Your task to perform on an android device: open app "Google Play Music" (install if not already installed) Image 0: 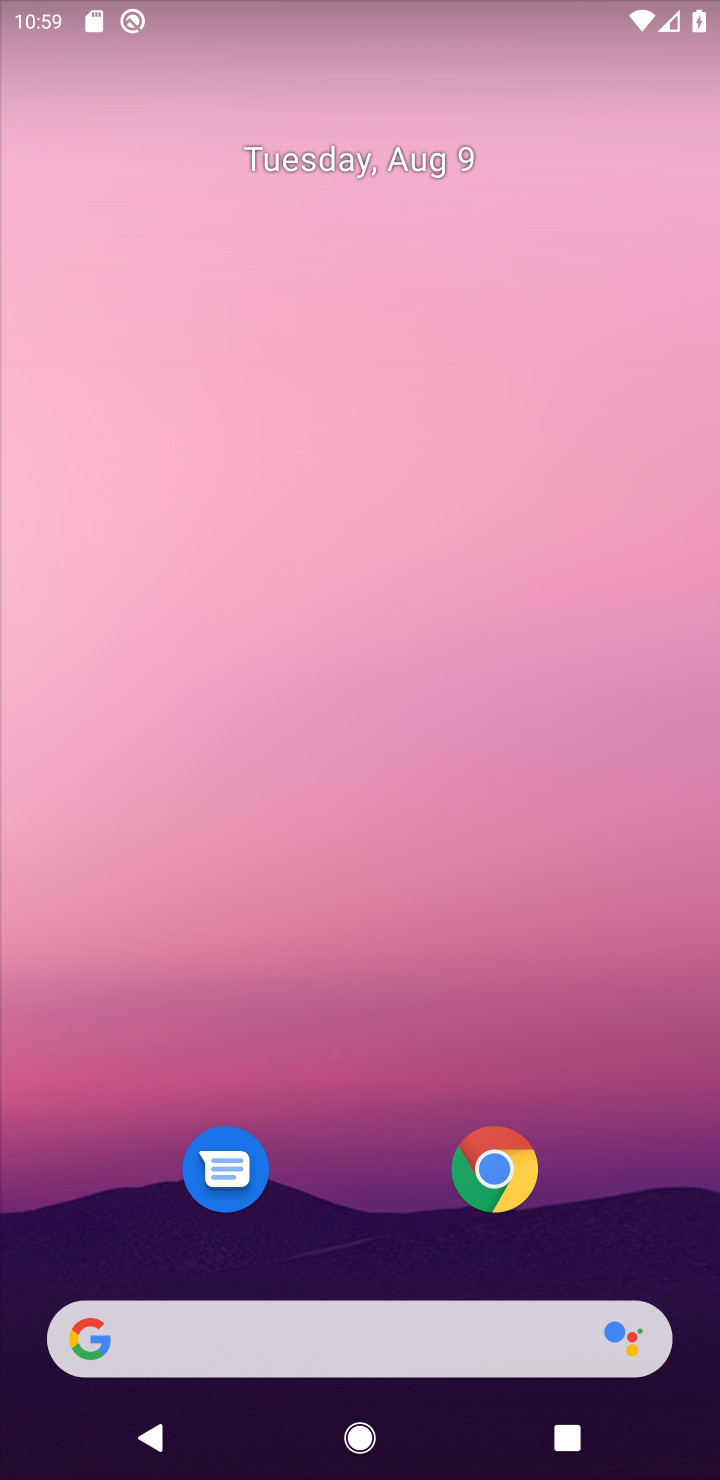
Step 0: press home button
Your task to perform on an android device: open app "Google Play Music" (install if not already installed) Image 1: 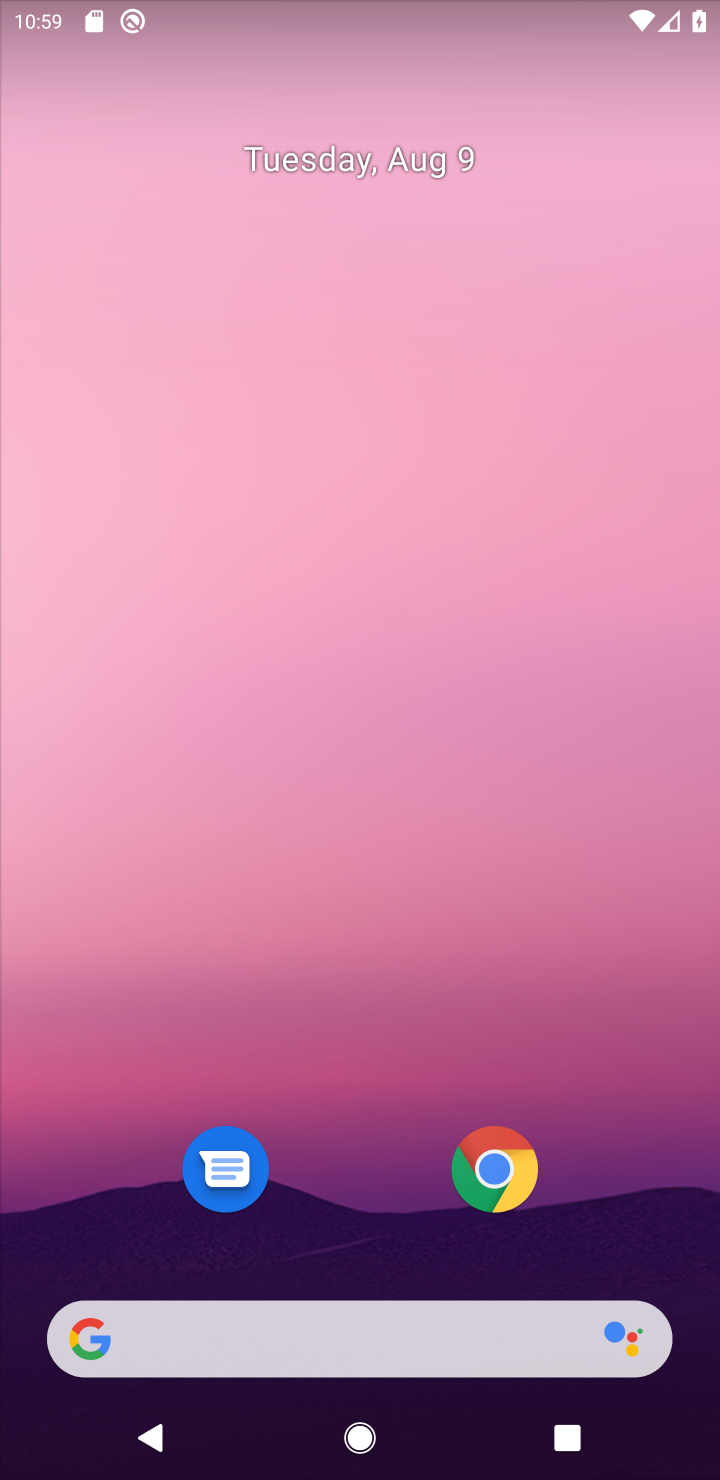
Step 1: drag from (636, 946) to (621, 182)
Your task to perform on an android device: open app "Google Play Music" (install if not already installed) Image 2: 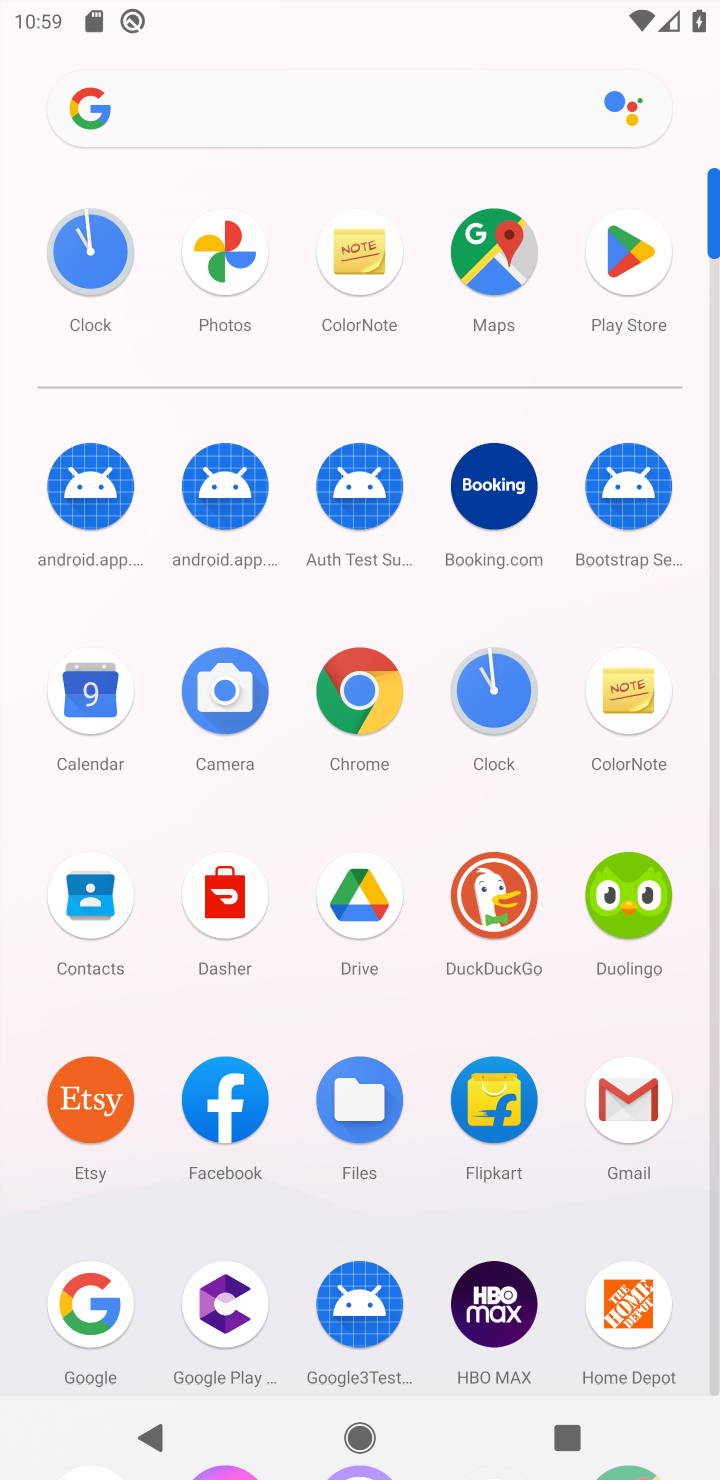
Step 2: click (626, 240)
Your task to perform on an android device: open app "Google Play Music" (install if not already installed) Image 3: 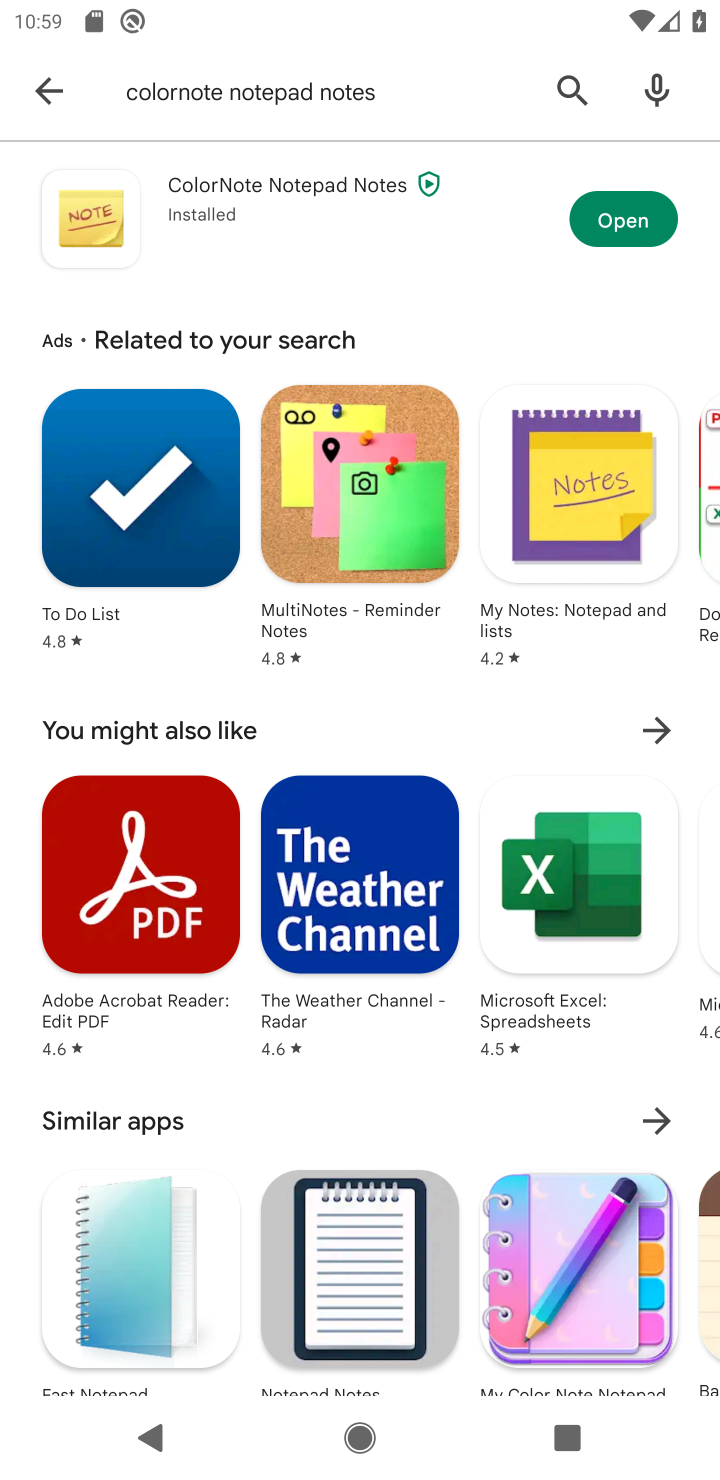
Step 3: click (564, 85)
Your task to perform on an android device: open app "Google Play Music" (install if not already installed) Image 4: 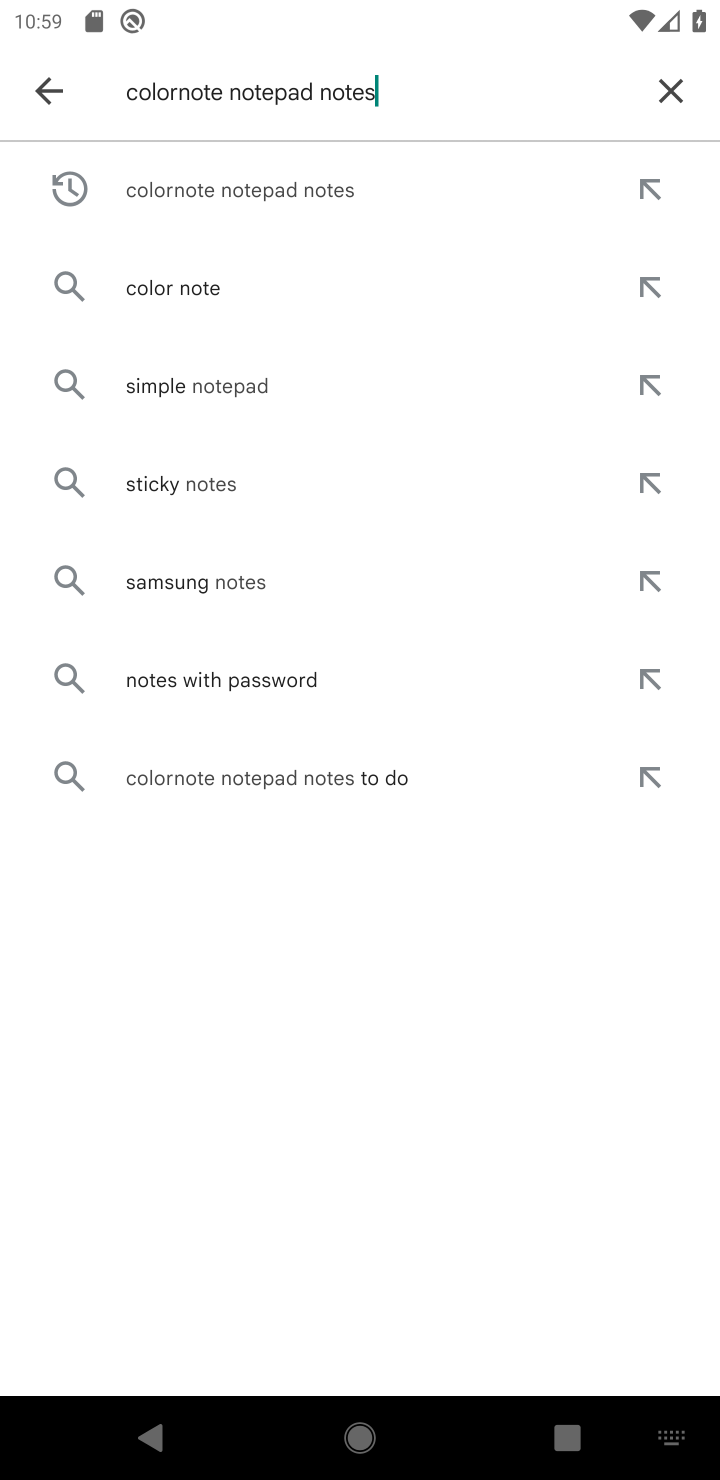
Step 4: click (664, 96)
Your task to perform on an android device: open app "Google Play Music" (install if not already installed) Image 5: 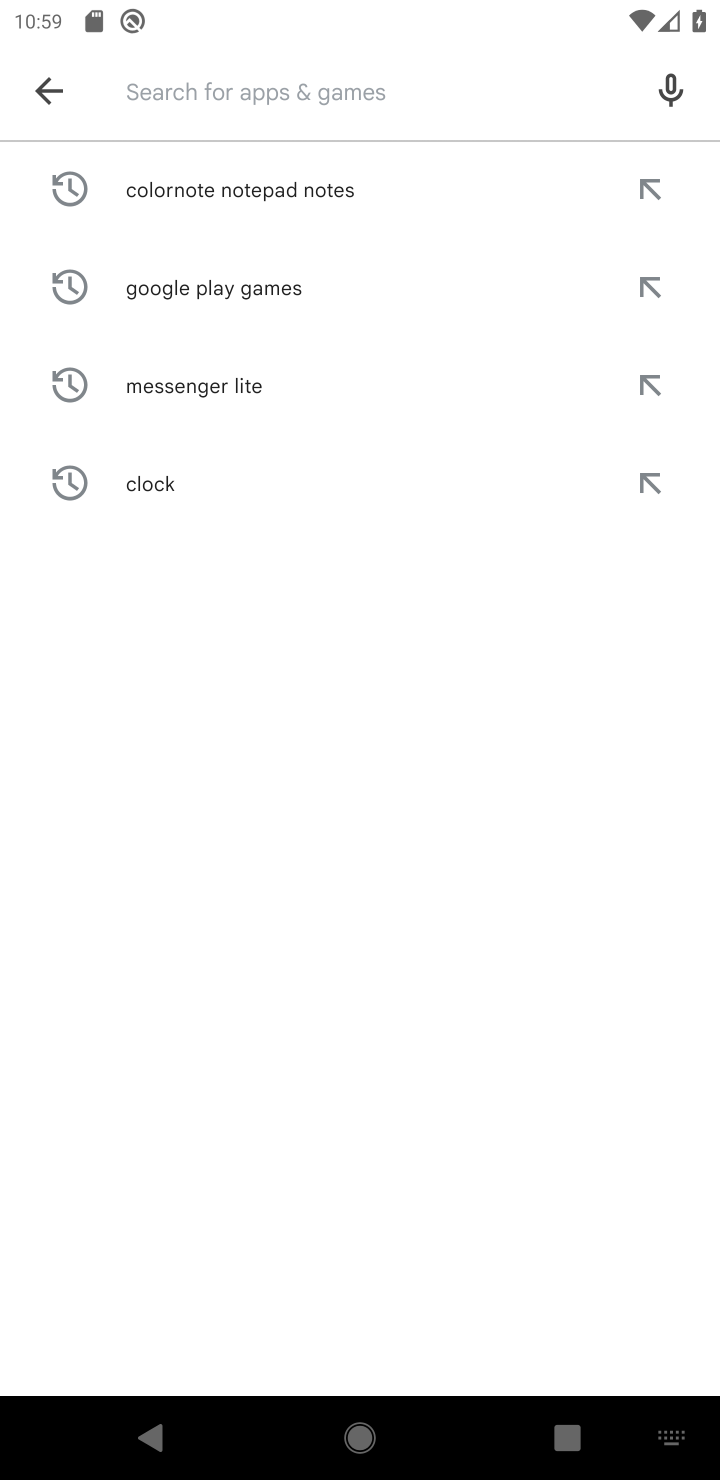
Step 5: type "google play music"
Your task to perform on an android device: open app "Google Play Music" (install if not already installed) Image 6: 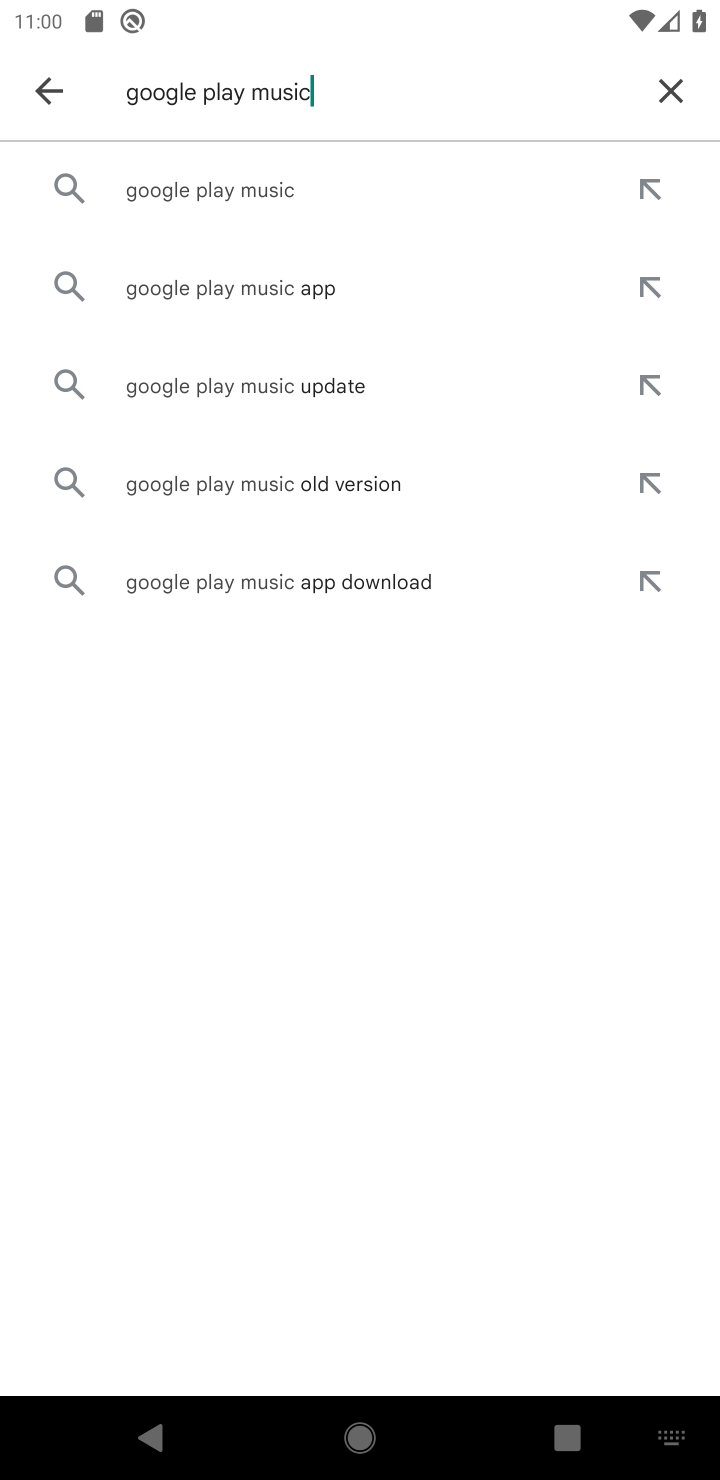
Step 6: click (287, 197)
Your task to perform on an android device: open app "Google Play Music" (install if not already installed) Image 7: 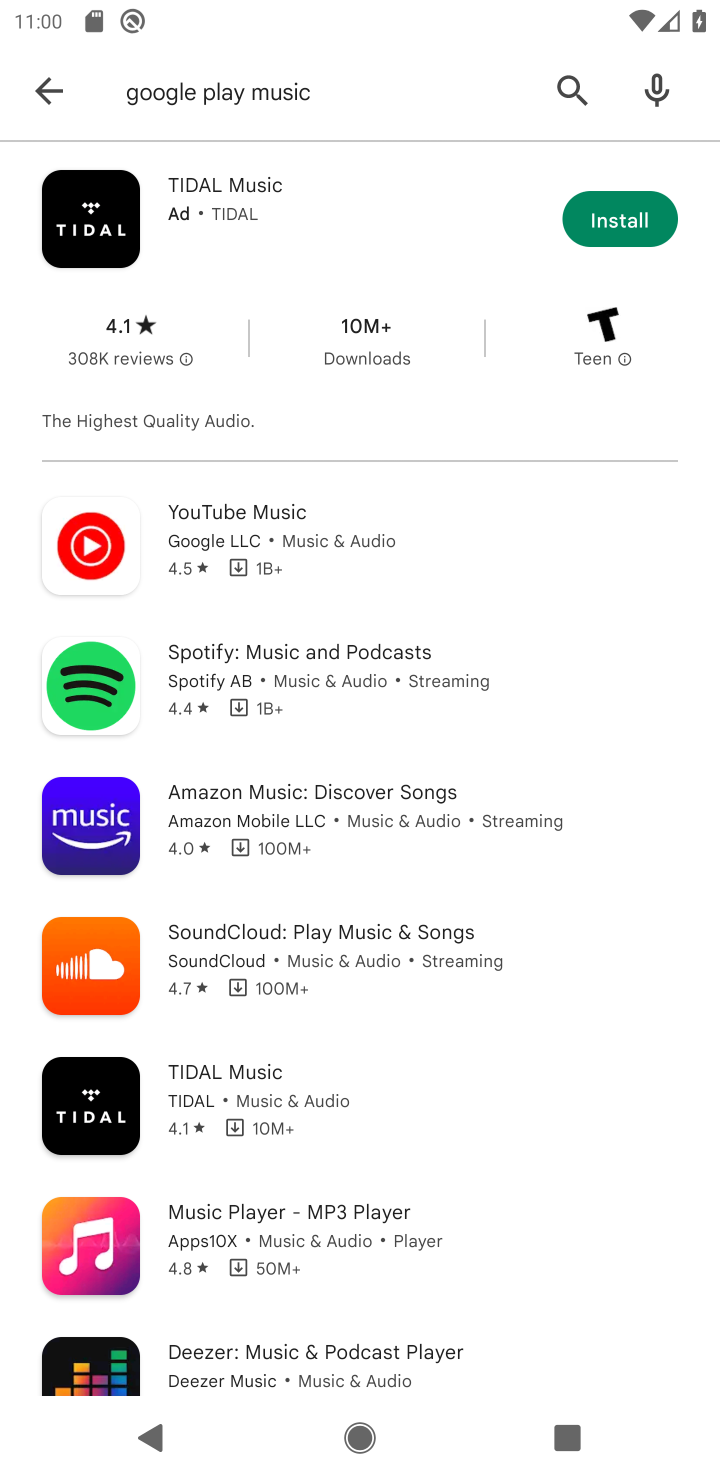
Step 7: click (317, 534)
Your task to perform on an android device: open app "Google Play Music" (install if not already installed) Image 8: 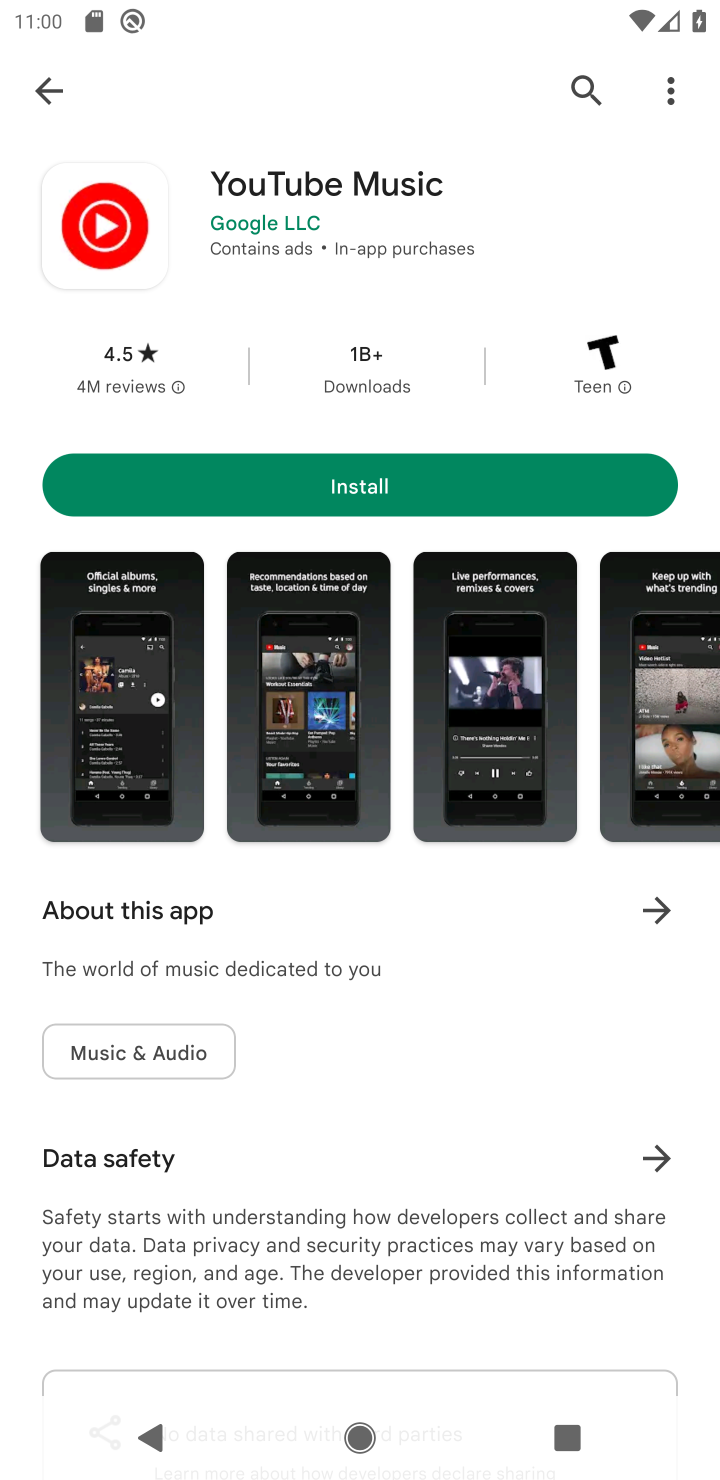
Step 8: click (398, 468)
Your task to perform on an android device: open app "Google Play Music" (install if not already installed) Image 9: 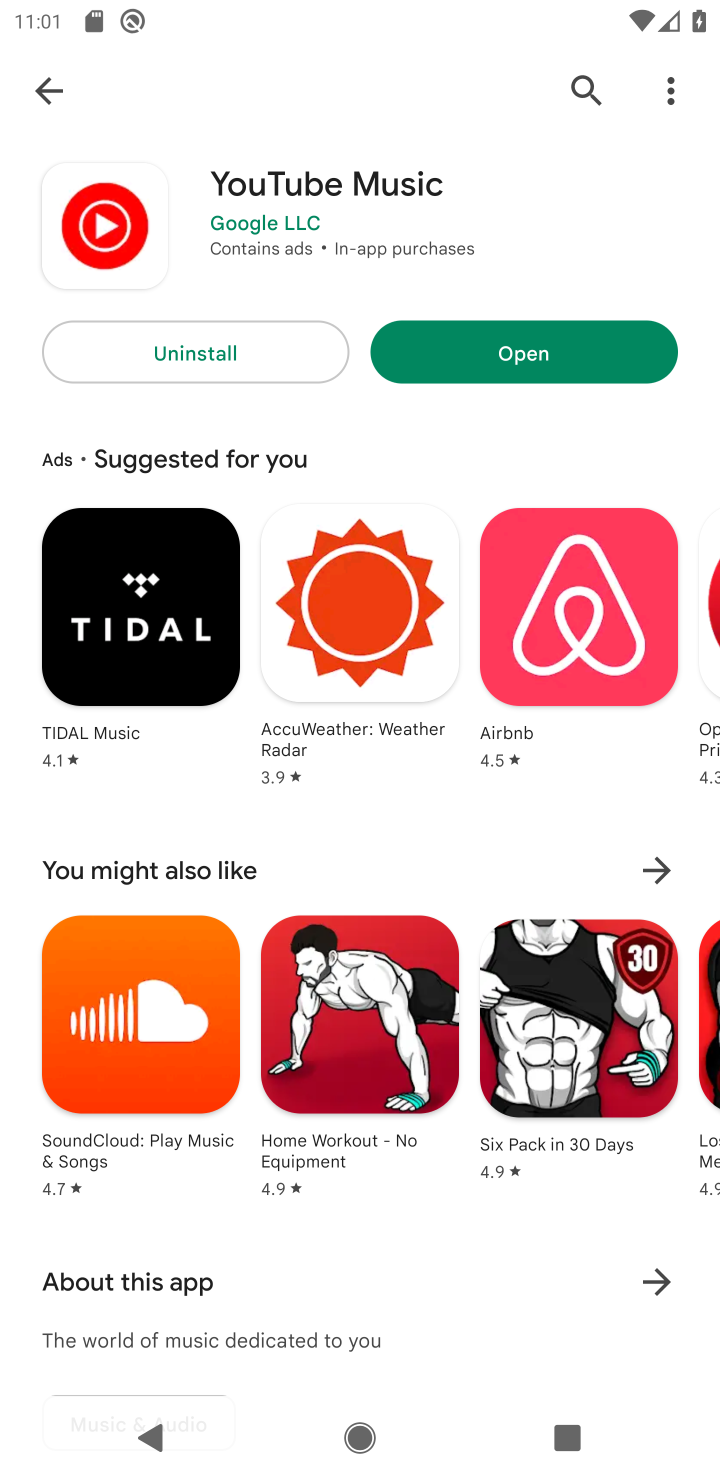
Step 9: click (577, 353)
Your task to perform on an android device: open app "Google Play Music" (install if not already installed) Image 10: 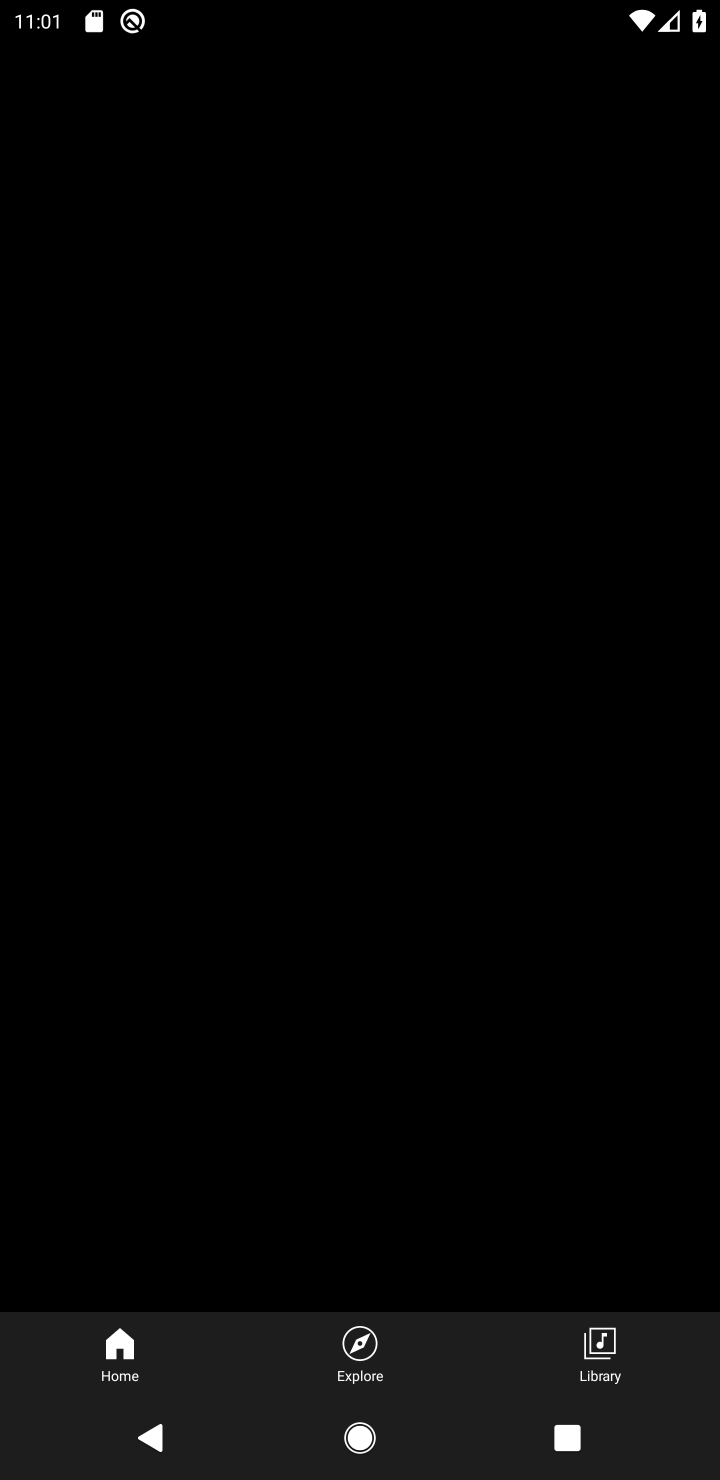
Step 10: task complete